Your task to perform on an android device: check google app version Image 0: 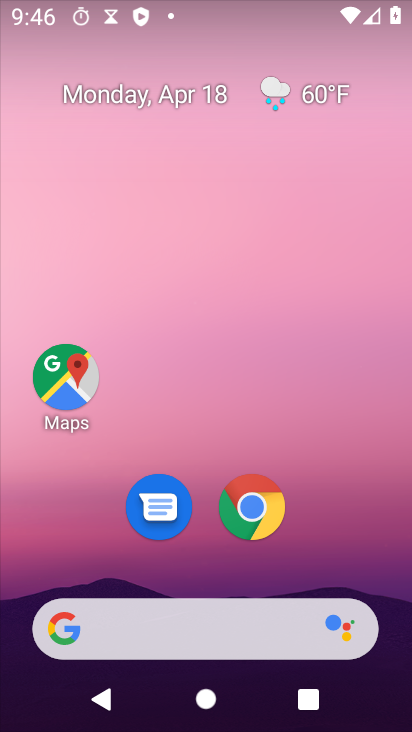
Step 0: drag from (325, 521) to (321, 0)
Your task to perform on an android device: check google app version Image 1: 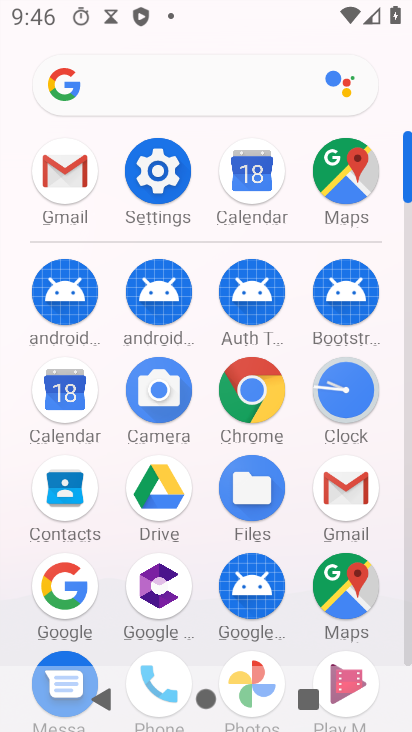
Step 1: click (69, 585)
Your task to perform on an android device: check google app version Image 2: 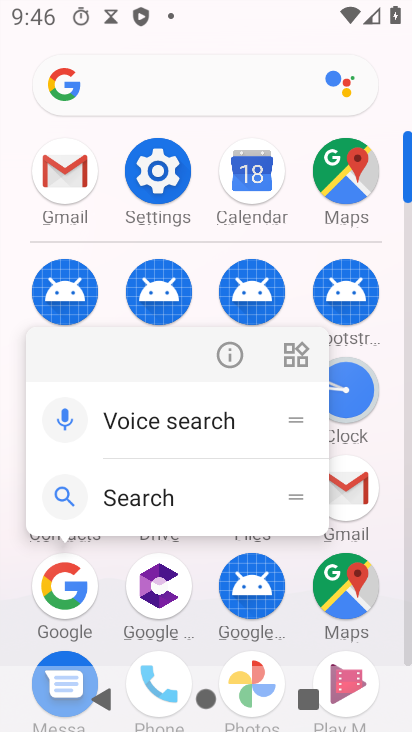
Step 2: click (69, 585)
Your task to perform on an android device: check google app version Image 3: 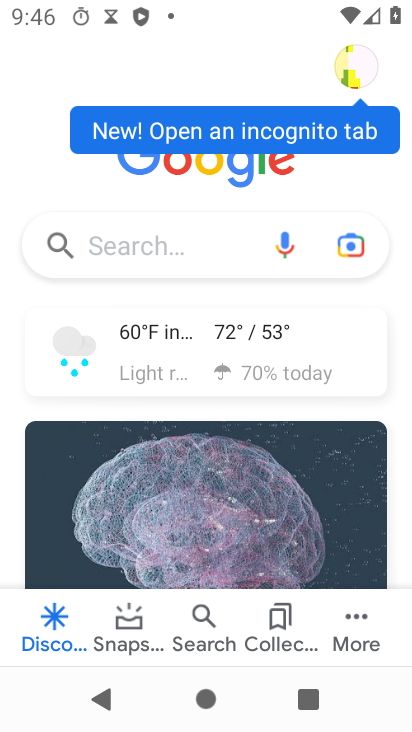
Step 3: click (353, 625)
Your task to perform on an android device: check google app version Image 4: 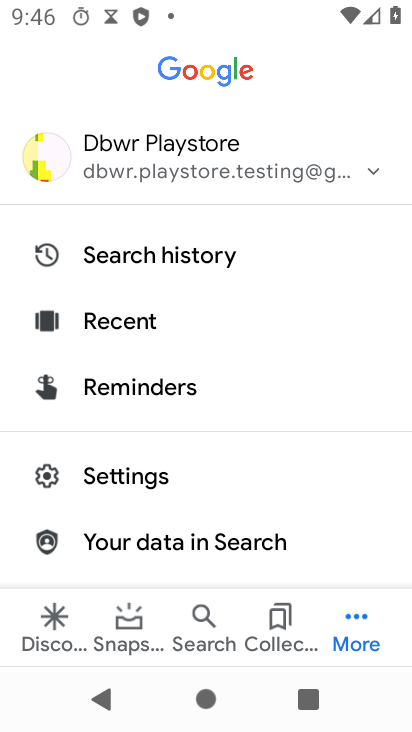
Step 4: click (173, 470)
Your task to perform on an android device: check google app version Image 5: 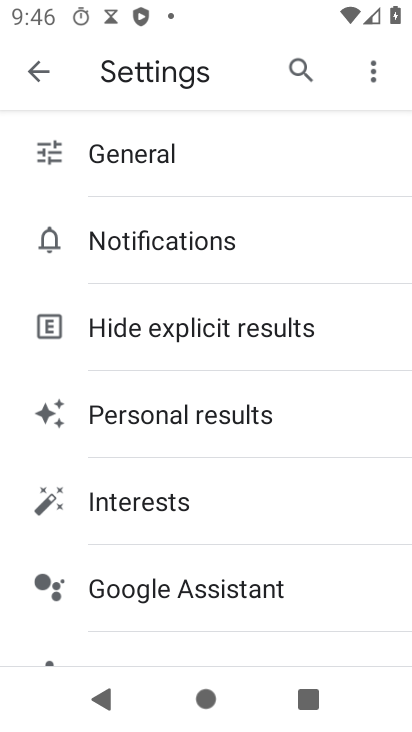
Step 5: drag from (182, 543) to (206, 426)
Your task to perform on an android device: check google app version Image 6: 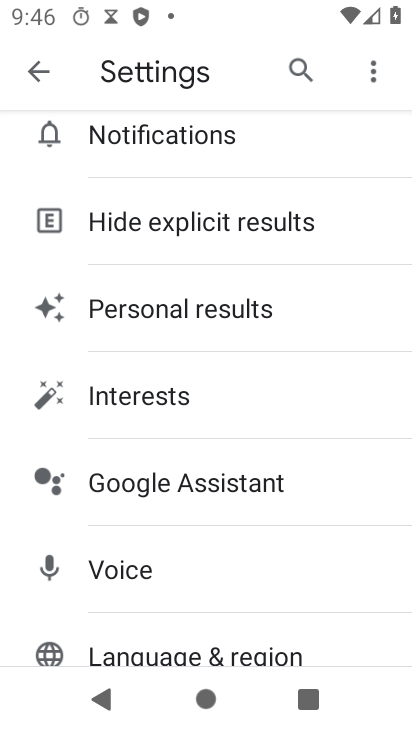
Step 6: drag from (209, 583) to (212, 453)
Your task to perform on an android device: check google app version Image 7: 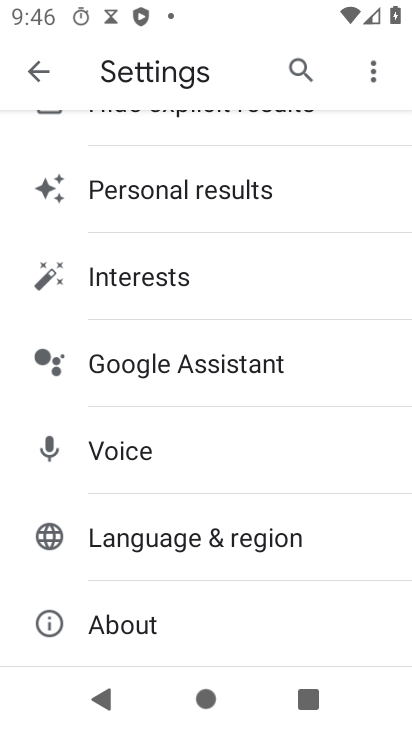
Step 7: click (199, 632)
Your task to perform on an android device: check google app version Image 8: 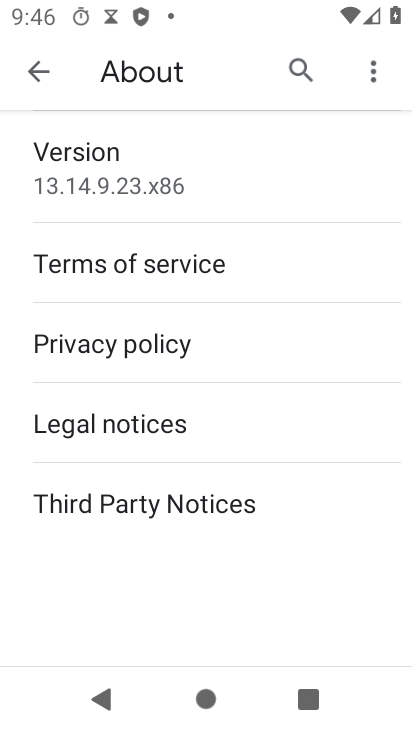
Step 8: click (116, 154)
Your task to perform on an android device: check google app version Image 9: 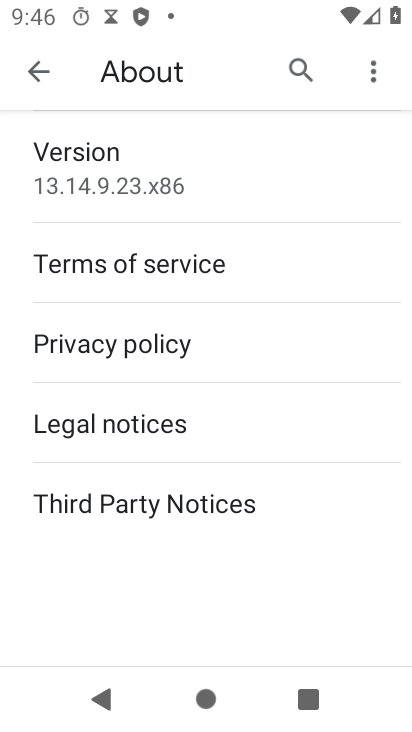
Step 9: task complete